Your task to perform on an android device: Open Youtube and go to the subscriptions tab Image 0: 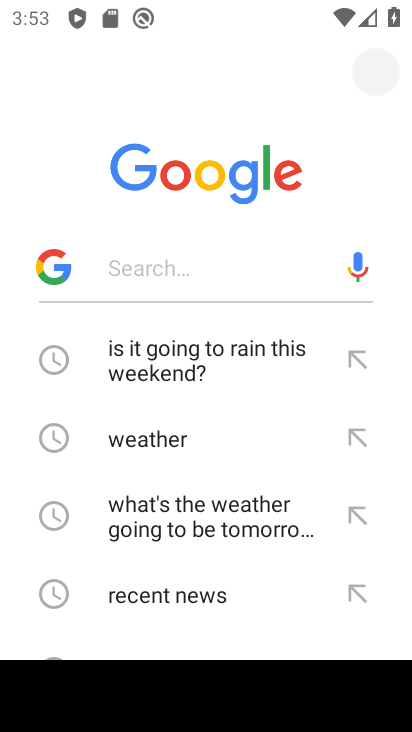
Step 0: press home button
Your task to perform on an android device: Open Youtube and go to the subscriptions tab Image 1: 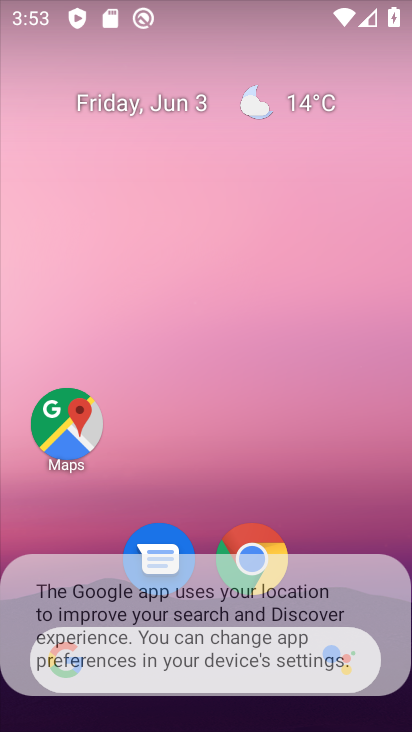
Step 1: drag from (344, 532) to (357, 94)
Your task to perform on an android device: Open Youtube and go to the subscriptions tab Image 2: 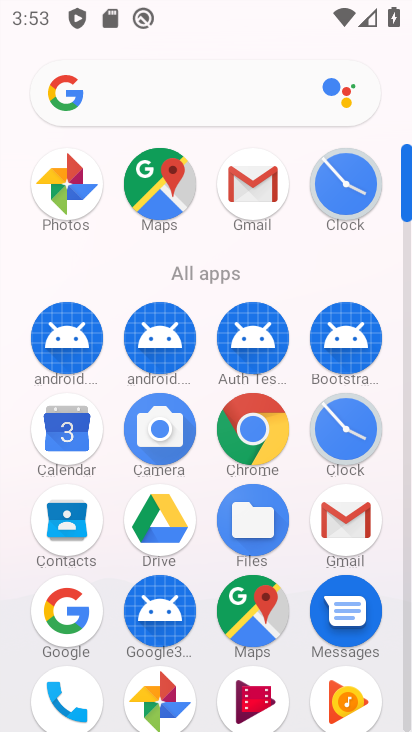
Step 2: drag from (294, 422) to (298, 88)
Your task to perform on an android device: Open Youtube and go to the subscriptions tab Image 3: 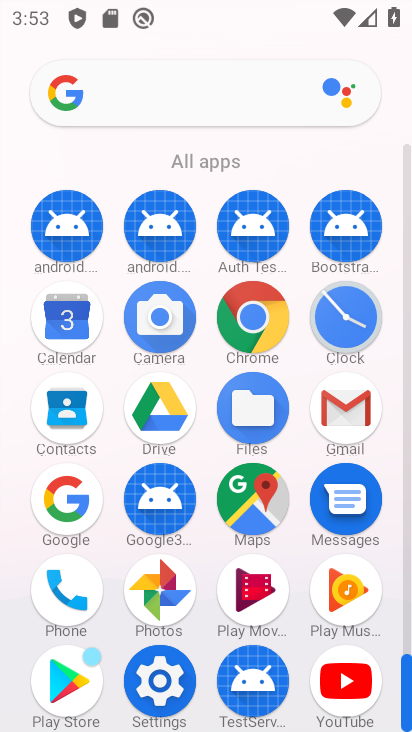
Step 3: click (345, 683)
Your task to perform on an android device: Open Youtube and go to the subscriptions tab Image 4: 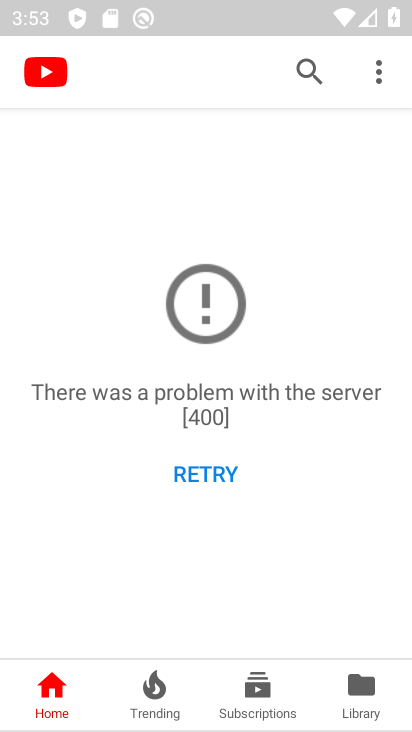
Step 4: click (242, 692)
Your task to perform on an android device: Open Youtube and go to the subscriptions tab Image 5: 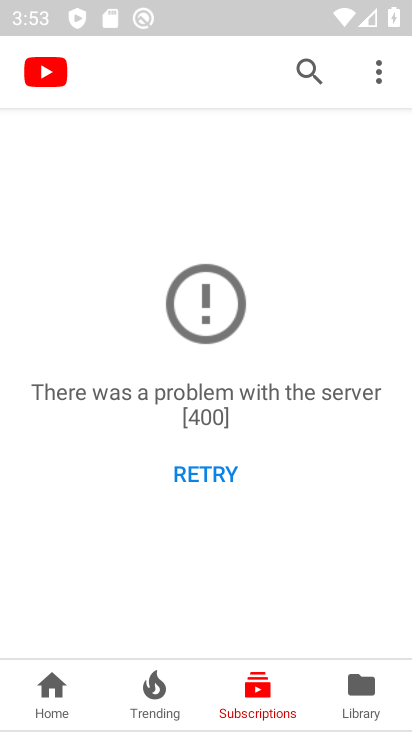
Step 5: task complete